Your task to perform on an android device: Set the phone to "Do not disturb". Image 0: 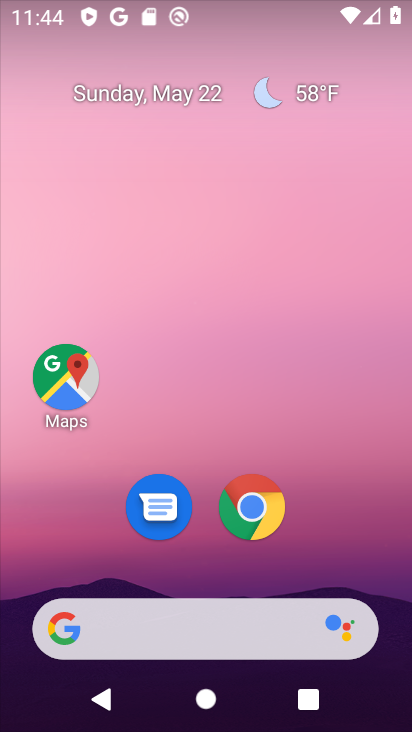
Step 0: click (229, 697)
Your task to perform on an android device: Set the phone to "Do not disturb". Image 1: 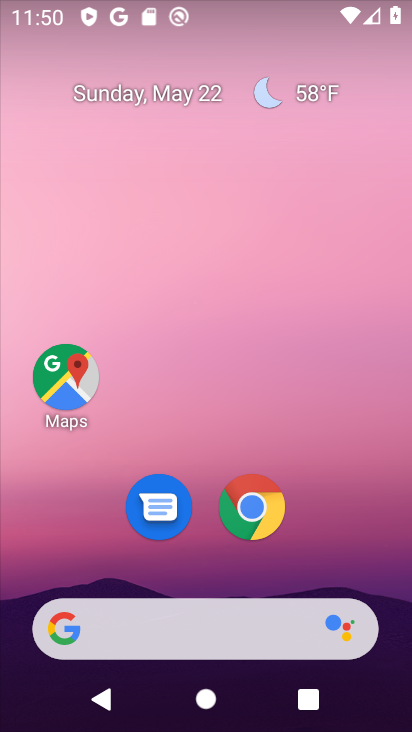
Step 1: drag from (256, 552) to (263, 0)
Your task to perform on an android device: Set the phone to "Do not disturb". Image 2: 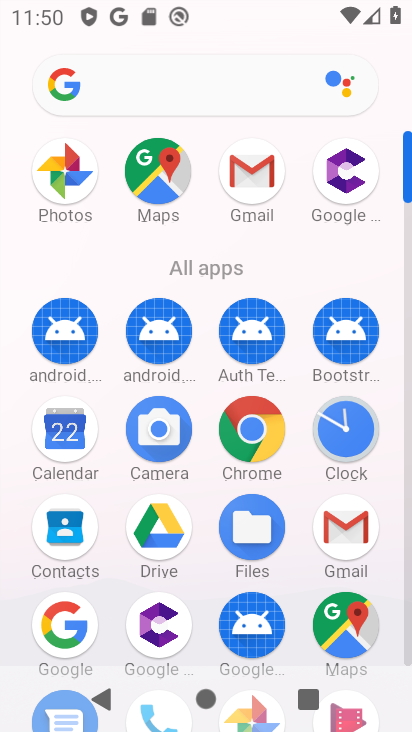
Step 2: drag from (249, 532) to (254, 158)
Your task to perform on an android device: Set the phone to "Do not disturb". Image 3: 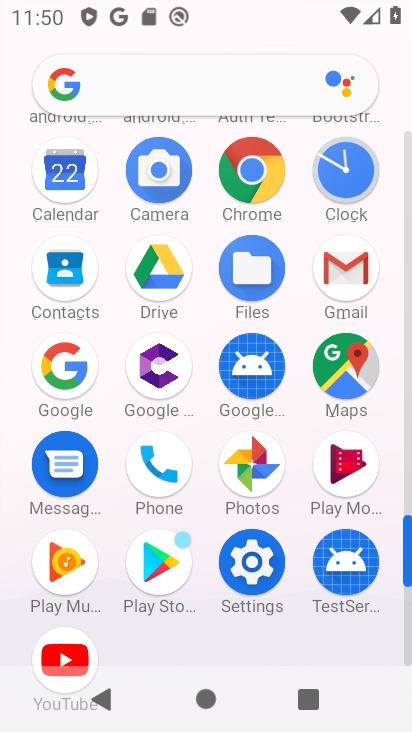
Step 3: click (261, 589)
Your task to perform on an android device: Set the phone to "Do not disturb". Image 4: 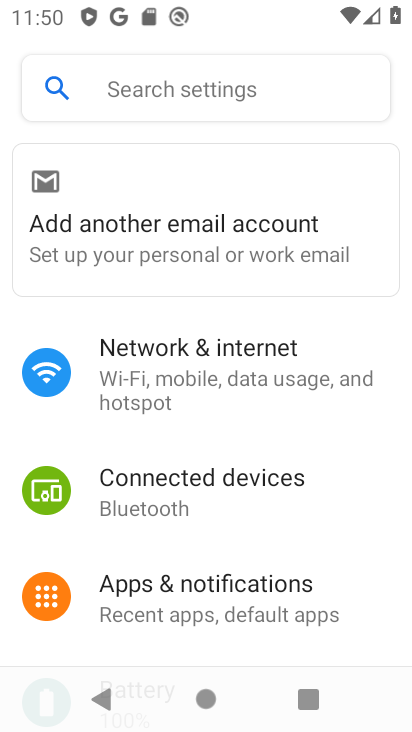
Step 4: drag from (226, 595) to (252, 17)
Your task to perform on an android device: Set the phone to "Do not disturb". Image 5: 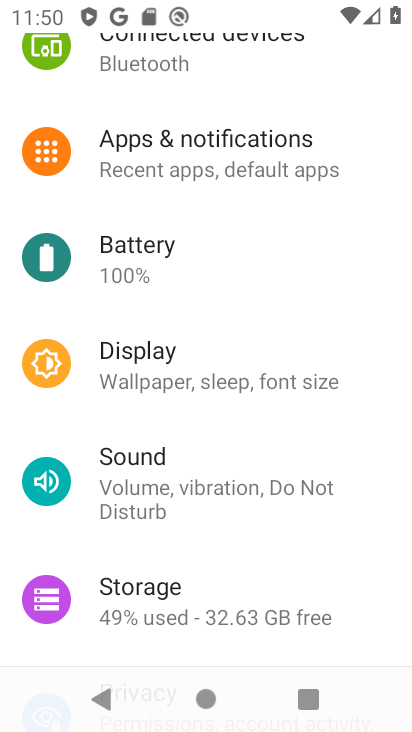
Step 5: click (294, 482)
Your task to perform on an android device: Set the phone to "Do not disturb". Image 6: 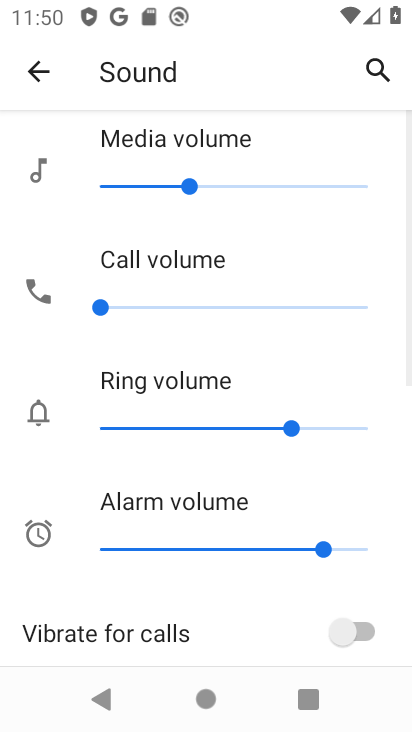
Step 6: drag from (236, 567) to (251, 57)
Your task to perform on an android device: Set the phone to "Do not disturb". Image 7: 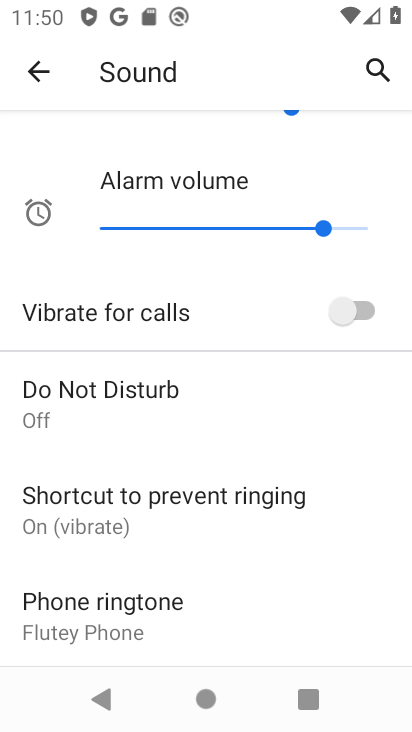
Step 7: click (73, 397)
Your task to perform on an android device: Set the phone to "Do not disturb". Image 8: 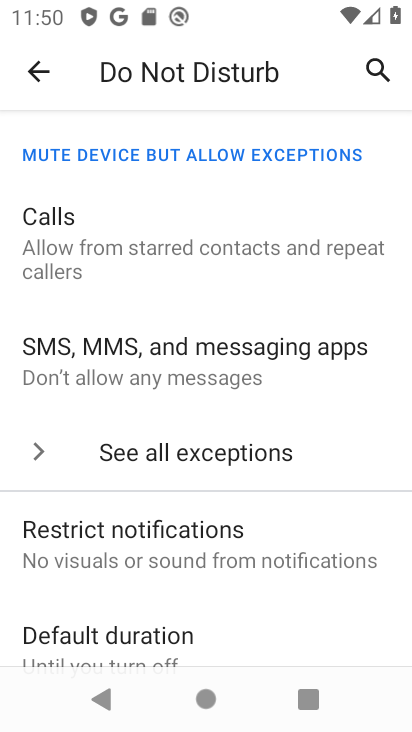
Step 8: drag from (195, 609) to (237, 46)
Your task to perform on an android device: Set the phone to "Do not disturb". Image 9: 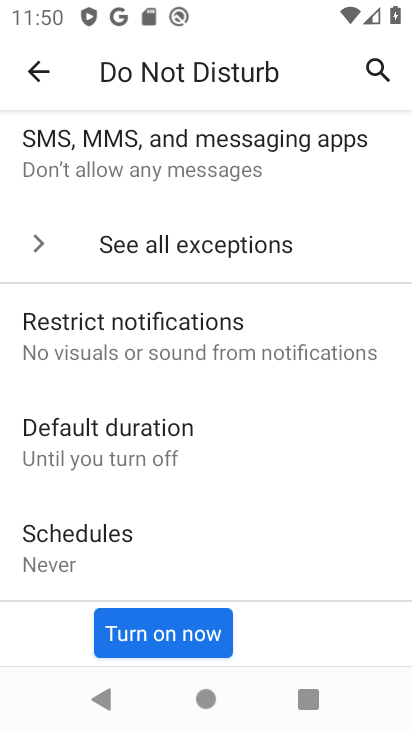
Step 9: click (167, 617)
Your task to perform on an android device: Set the phone to "Do not disturb". Image 10: 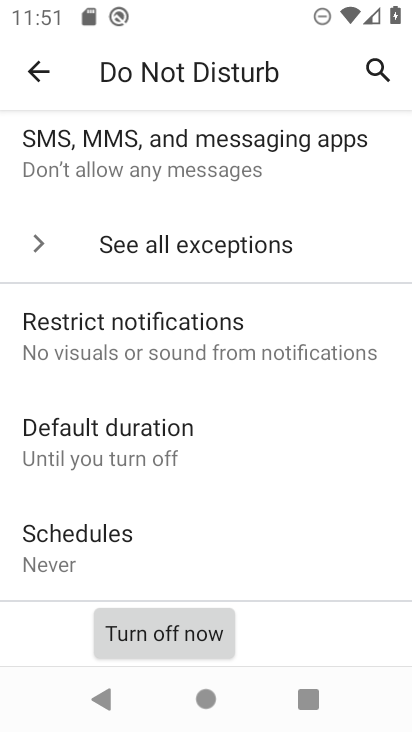
Step 10: task complete